Your task to perform on an android device: Open the map Image 0: 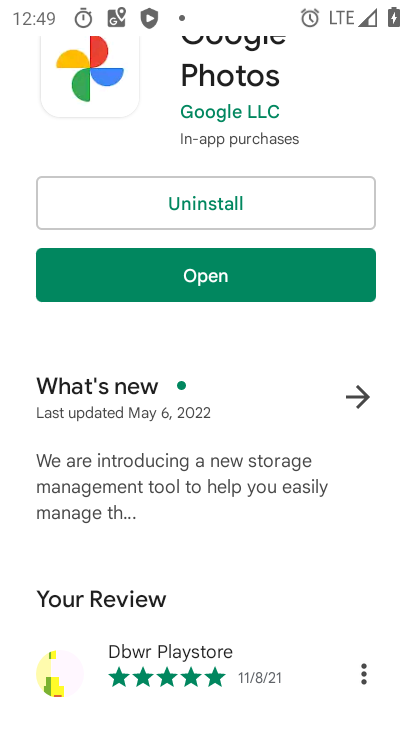
Step 0: press home button
Your task to perform on an android device: Open the map Image 1: 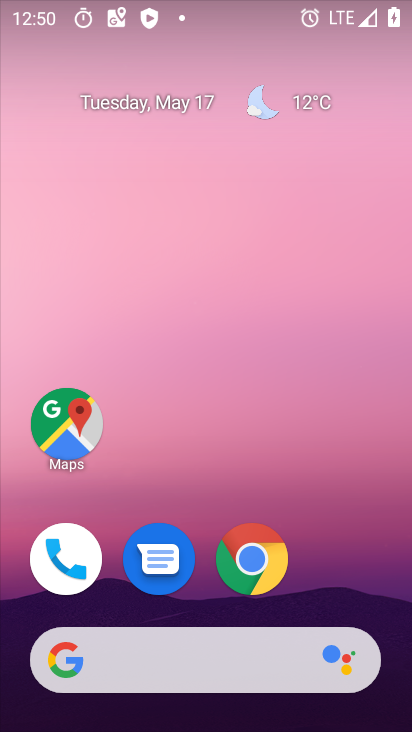
Step 1: click (250, 566)
Your task to perform on an android device: Open the map Image 2: 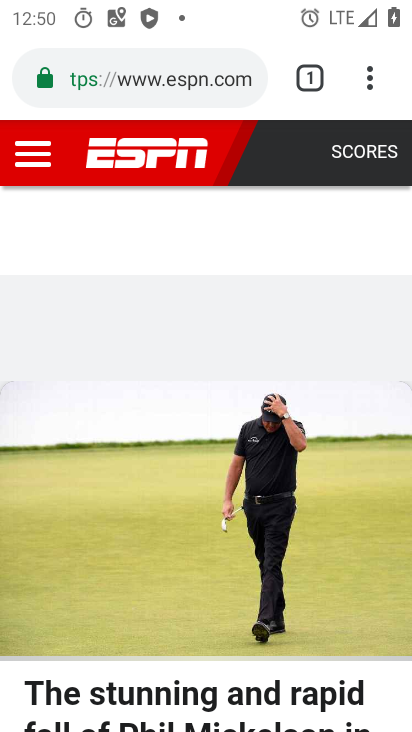
Step 2: press home button
Your task to perform on an android device: Open the map Image 3: 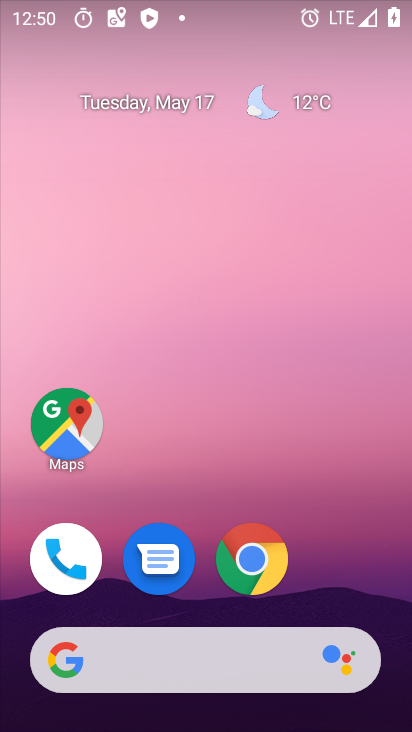
Step 3: click (68, 416)
Your task to perform on an android device: Open the map Image 4: 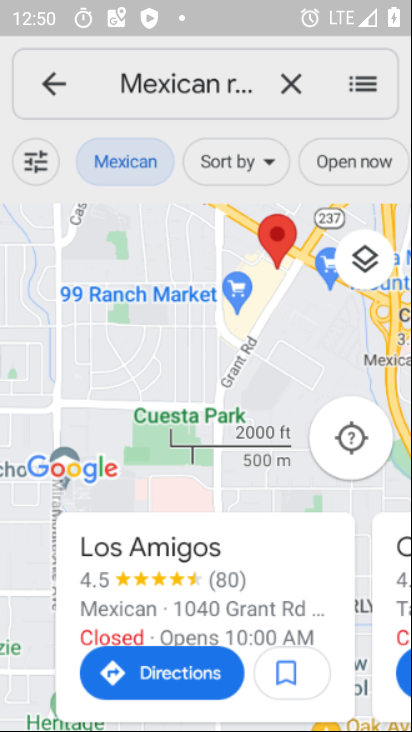
Step 4: task complete